Your task to perform on an android device: turn off location Image 0: 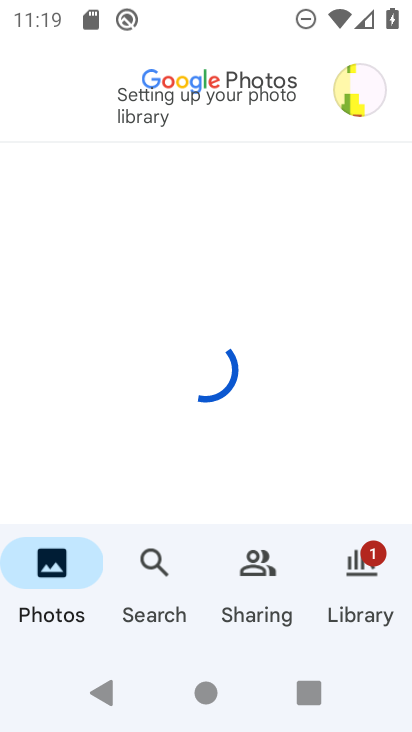
Step 0: press home button
Your task to perform on an android device: turn off location Image 1: 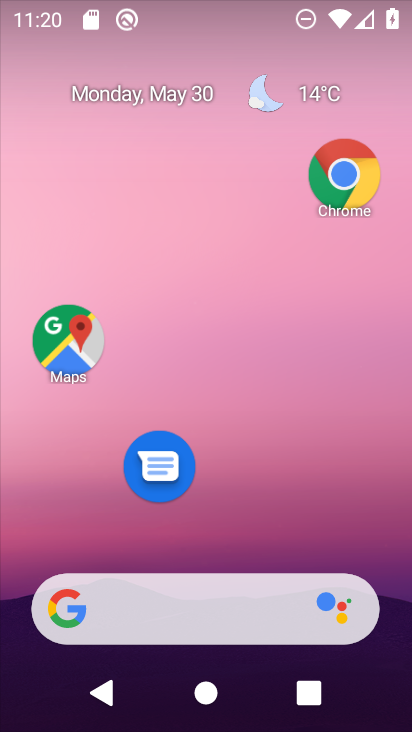
Step 1: drag from (228, 316) to (228, 9)
Your task to perform on an android device: turn off location Image 2: 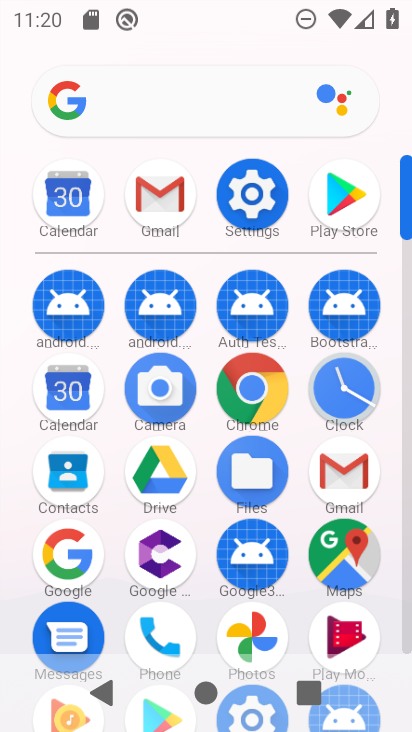
Step 2: click (253, 182)
Your task to perform on an android device: turn off location Image 3: 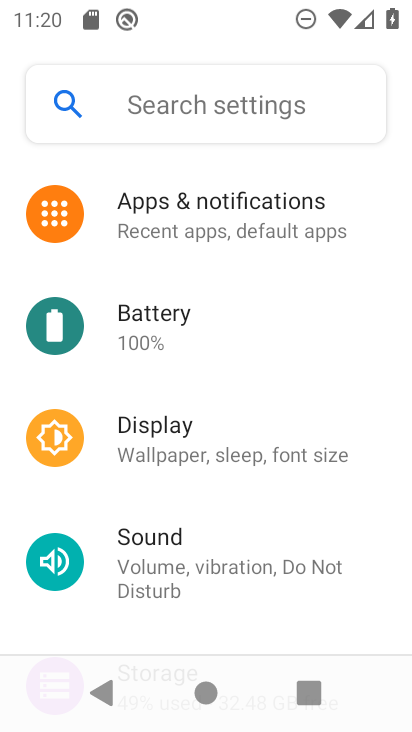
Step 3: drag from (230, 526) to (195, 219)
Your task to perform on an android device: turn off location Image 4: 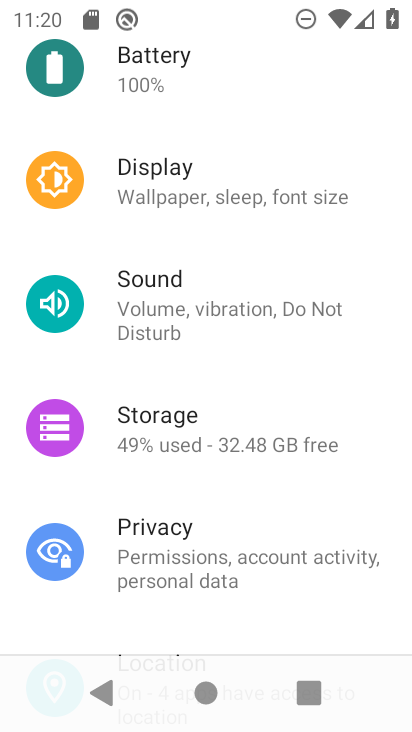
Step 4: drag from (184, 430) to (167, 155)
Your task to perform on an android device: turn off location Image 5: 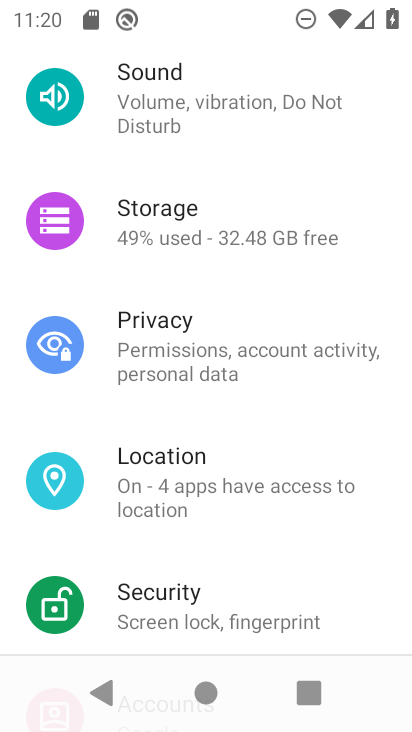
Step 5: click (161, 475)
Your task to perform on an android device: turn off location Image 6: 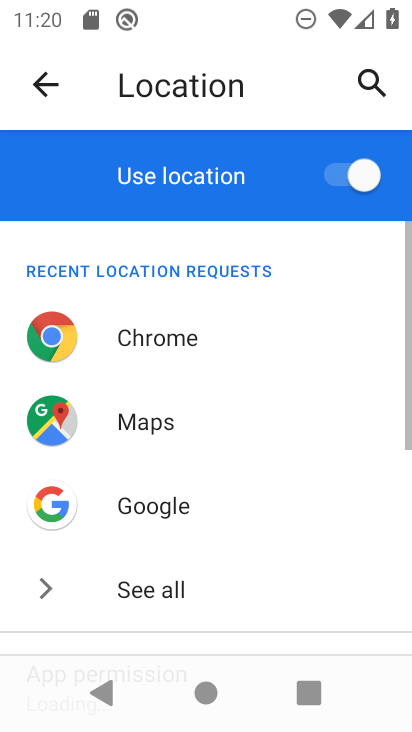
Step 6: click (354, 168)
Your task to perform on an android device: turn off location Image 7: 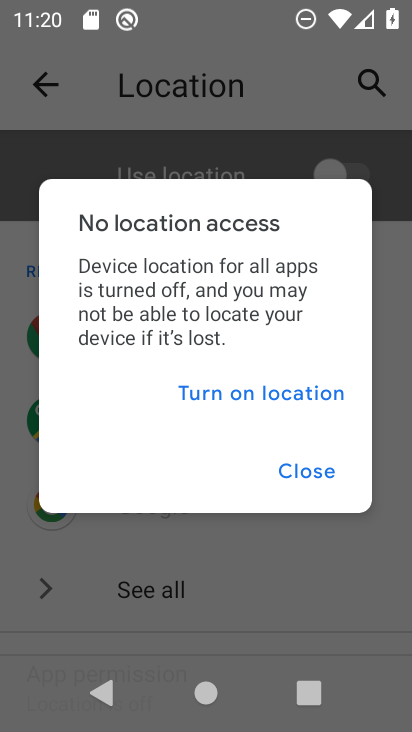
Step 7: task complete